Your task to perform on an android device: Show me the alarms in the clock app Image 0: 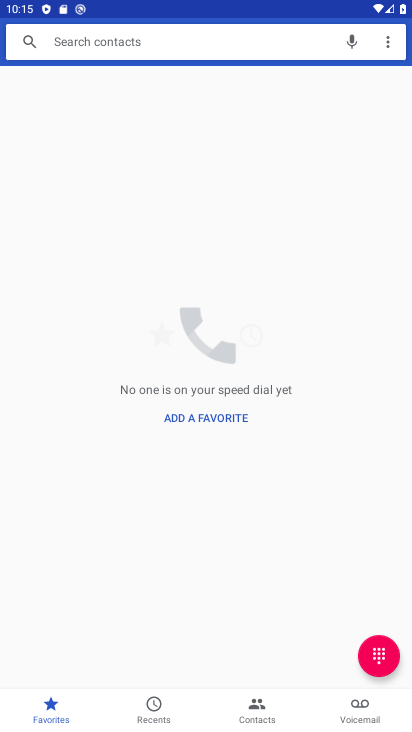
Step 0: press home button
Your task to perform on an android device: Show me the alarms in the clock app Image 1: 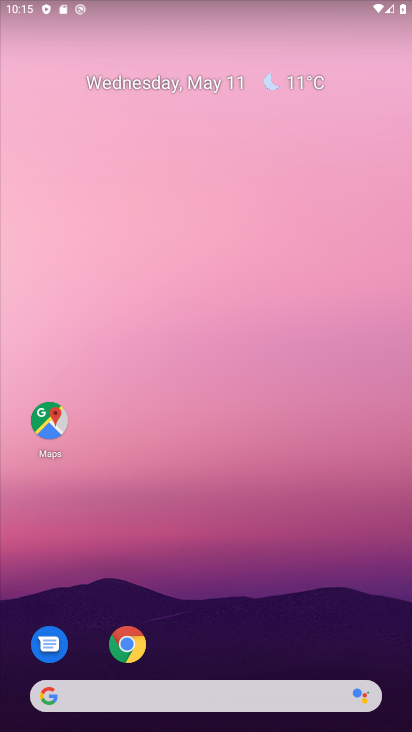
Step 1: drag from (324, 405) to (264, 27)
Your task to perform on an android device: Show me the alarms in the clock app Image 2: 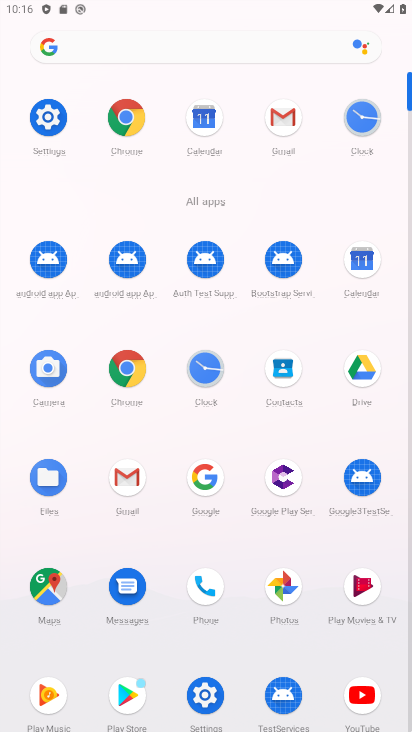
Step 2: click (364, 129)
Your task to perform on an android device: Show me the alarms in the clock app Image 3: 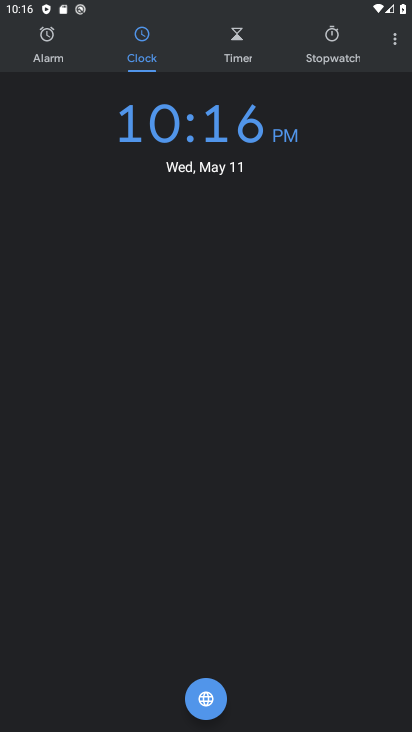
Step 3: click (61, 63)
Your task to perform on an android device: Show me the alarms in the clock app Image 4: 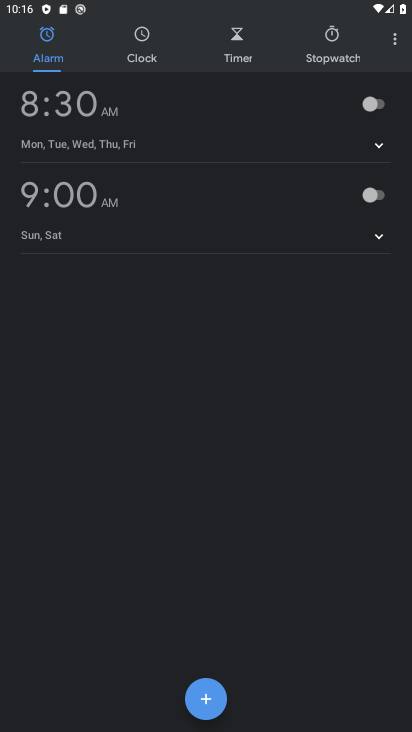
Step 4: task complete